Your task to perform on an android device: see sites visited before in the chrome app Image 0: 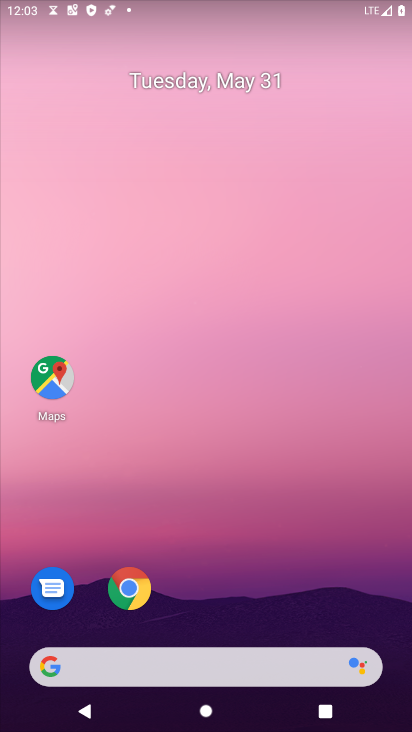
Step 0: click (132, 584)
Your task to perform on an android device: see sites visited before in the chrome app Image 1: 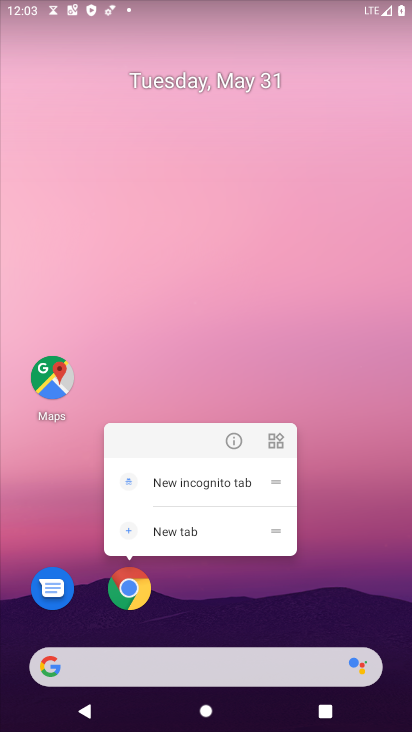
Step 1: click (135, 597)
Your task to perform on an android device: see sites visited before in the chrome app Image 2: 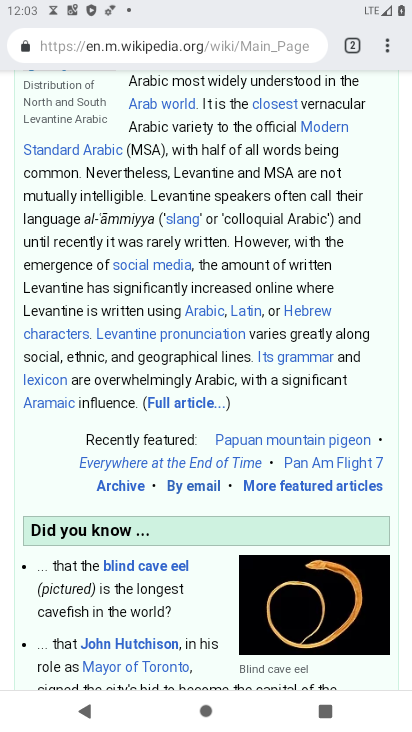
Step 2: click (389, 44)
Your task to perform on an android device: see sites visited before in the chrome app Image 3: 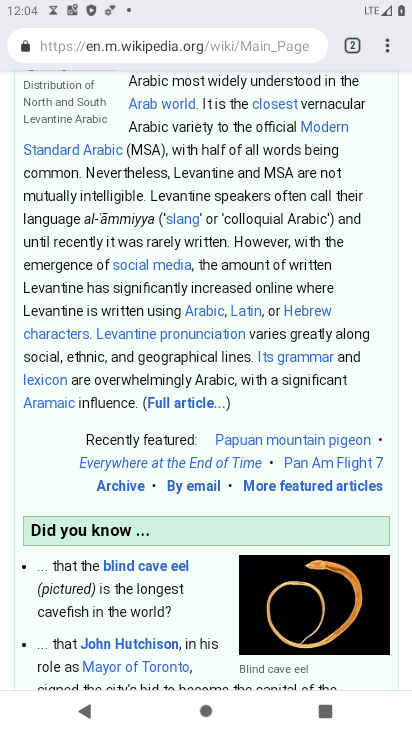
Step 3: click (386, 40)
Your task to perform on an android device: see sites visited before in the chrome app Image 4: 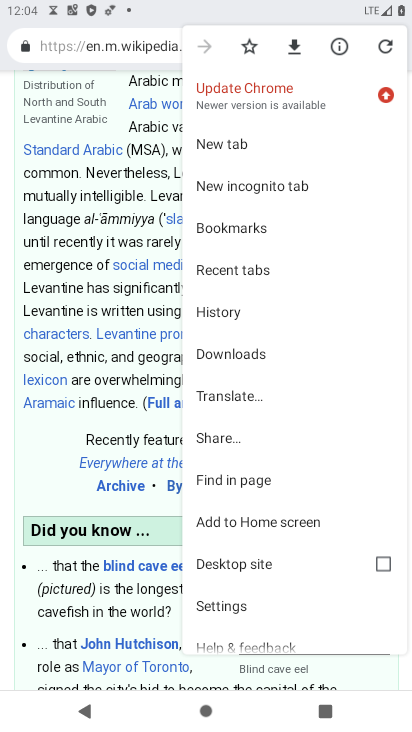
Step 4: click (224, 315)
Your task to perform on an android device: see sites visited before in the chrome app Image 5: 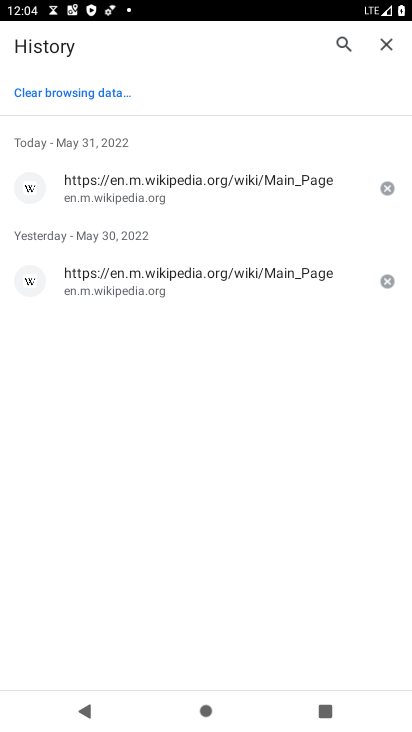
Step 5: task complete